Your task to perform on an android device: Open the Play Movies app and select the watchlist tab. Image 0: 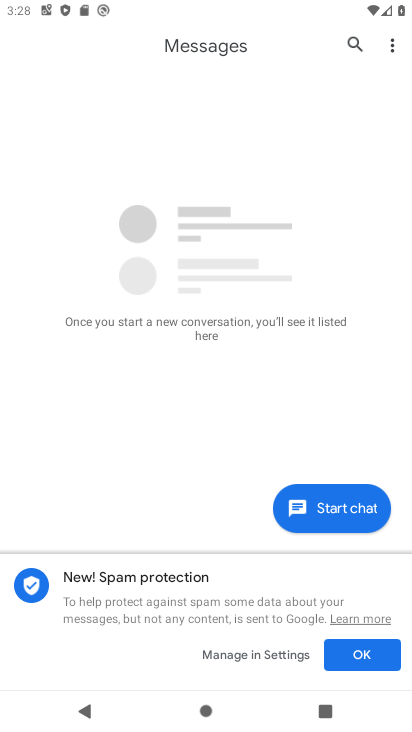
Step 0: press home button
Your task to perform on an android device: Open the Play Movies app and select the watchlist tab. Image 1: 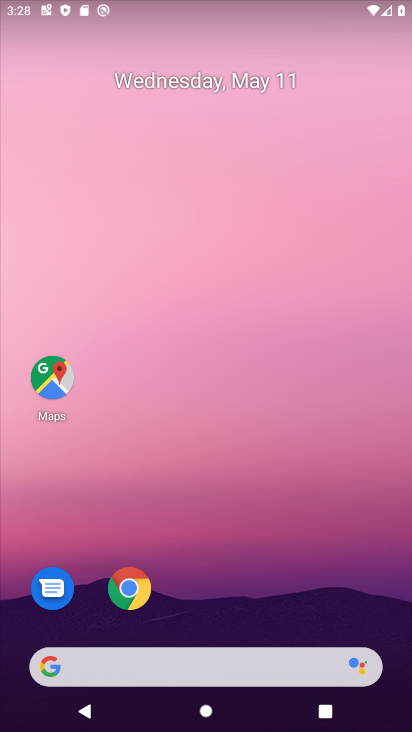
Step 1: drag from (224, 586) to (166, 9)
Your task to perform on an android device: Open the Play Movies app and select the watchlist tab. Image 2: 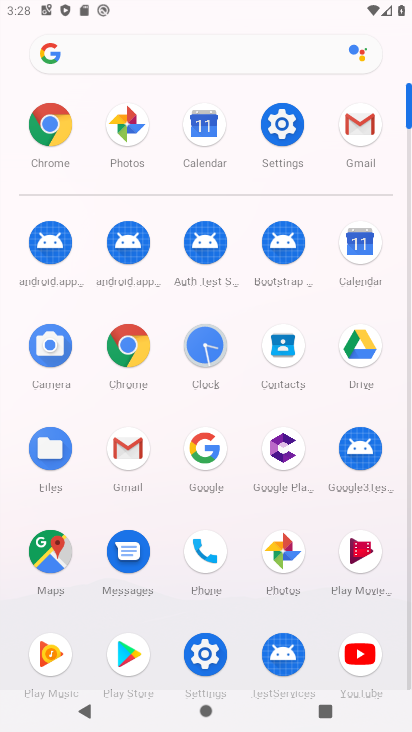
Step 2: click (366, 574)
Your task to perform on an android device: Open the Play Movies app and select the watchlist tab. Image 3: 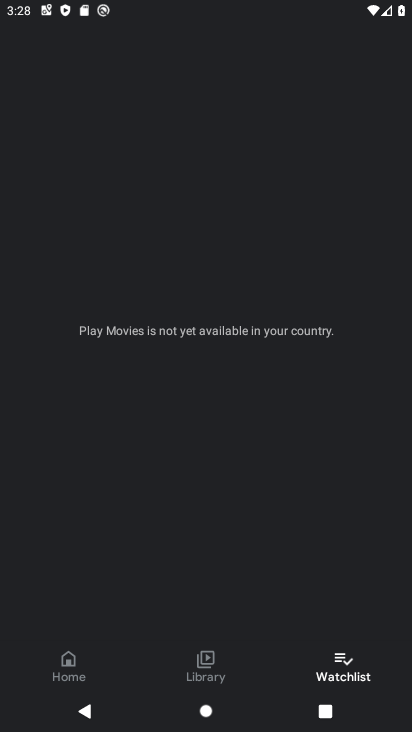
Step 3: task complete